Your task to perform on an android device: Open notification settings Image 0: 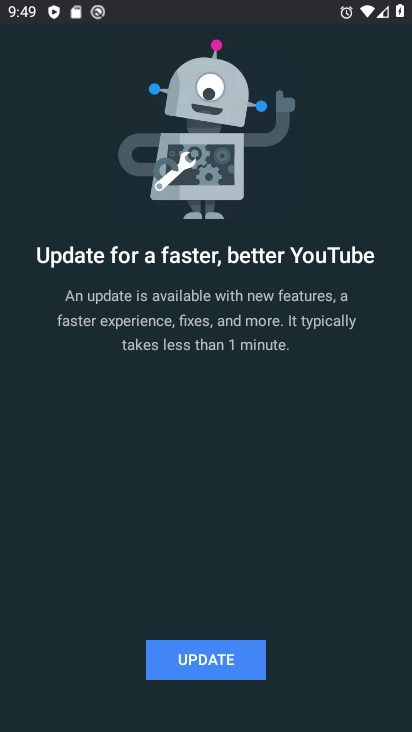
Step 0: press home button
Your task to perform on an android device: Open notification settings Image 1: 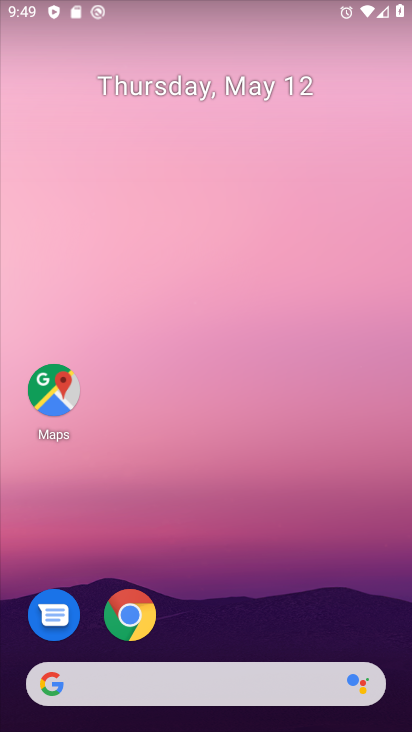
Step 1: drag from (259, 532) to (294, 120)
Your task to perform on an android device: Open notification settings Image 2: 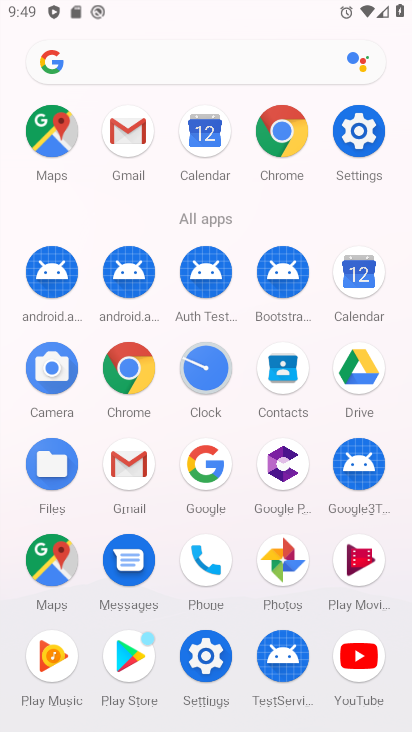
Step 2: click (371, 143)
Your task to perform on an android device: Open notification settings Image 3: 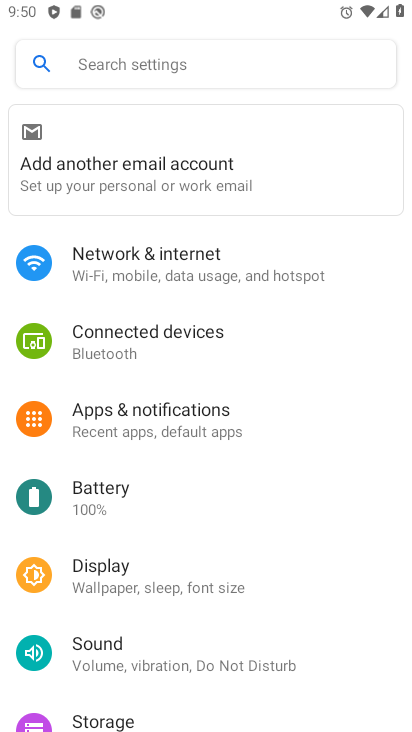
Step 3: click (174, 410)
Your task to perform on an android device: Open notification settings Image 4: 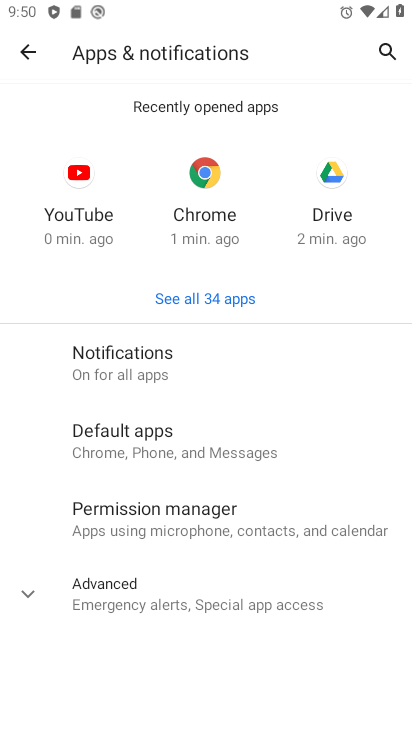
Step 4: click (155, 369)
Your task to perform on an android device: Open notification settings Image 5: 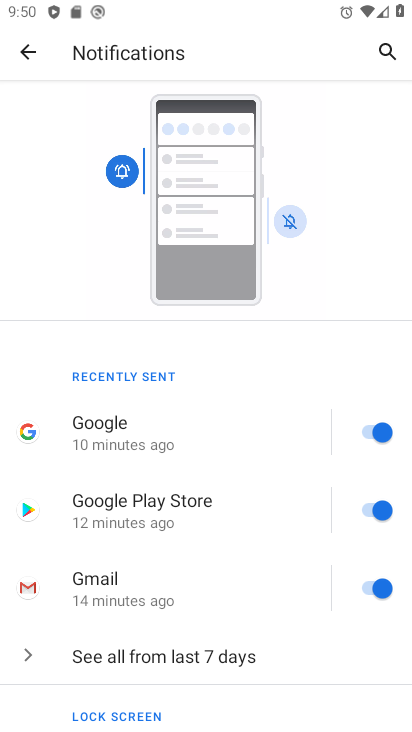
Step 5: task complete